Your task to perform on an android device: Search for seafood restaurants on Google Maps Image 0: 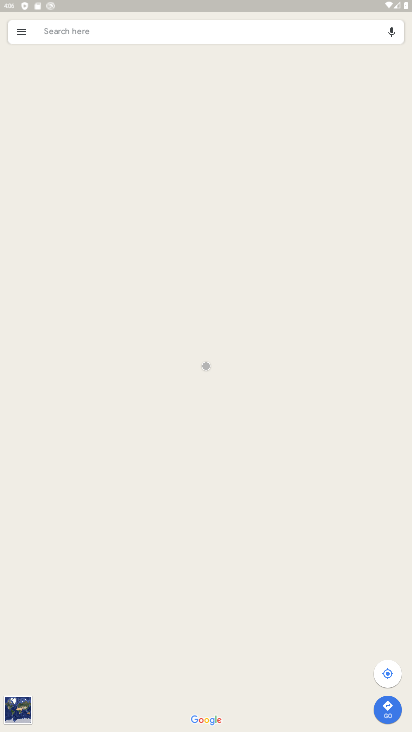
Step 0: press home button
Your task to perform on an android device: Search for seafood restaurants on Google Maps Image 1: 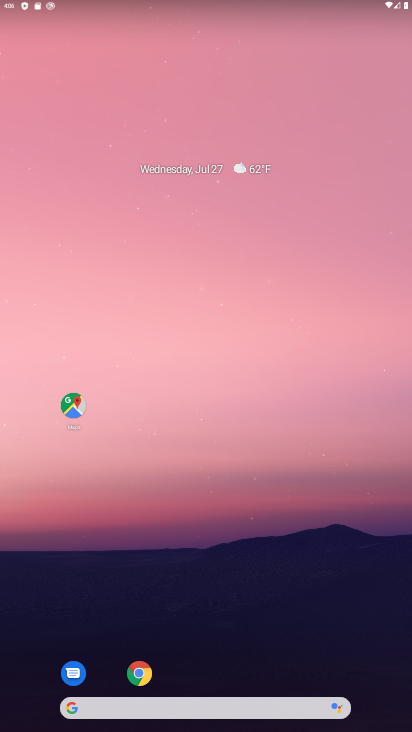
Step 1: click (73, 398)
Your task to perform on an android device: Search for seafood restaurants on Google Maps Image 2: 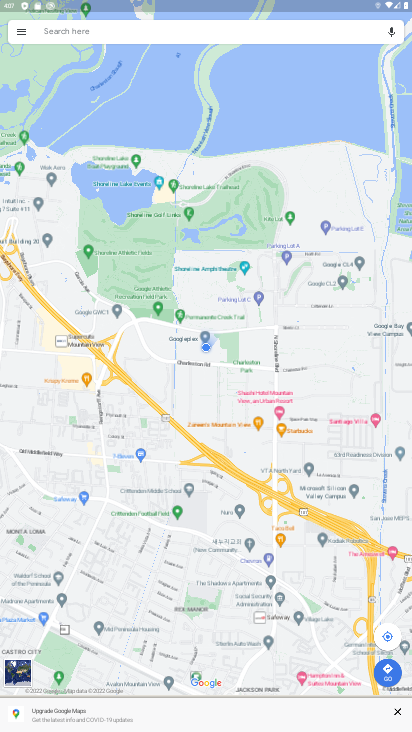
Step 2: click (132, 33)
Your task to perform on an android device: Search for seafood restaurants on Google Maps Image 3: 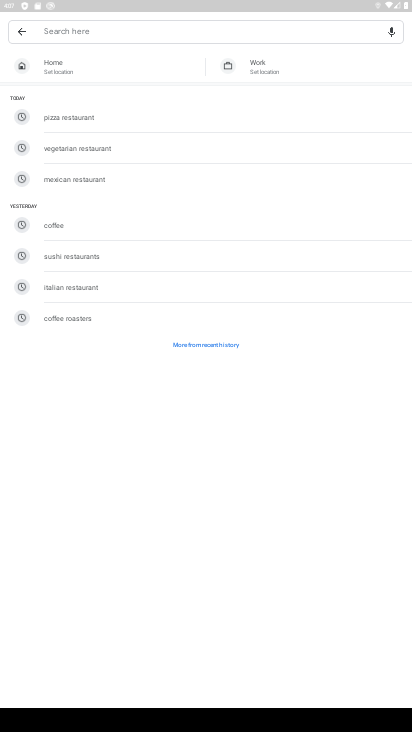
Step 3: type " seafood restaurants"
Your task to perform on an android device: Search for seafood restaurants on Google Maps Image 4: 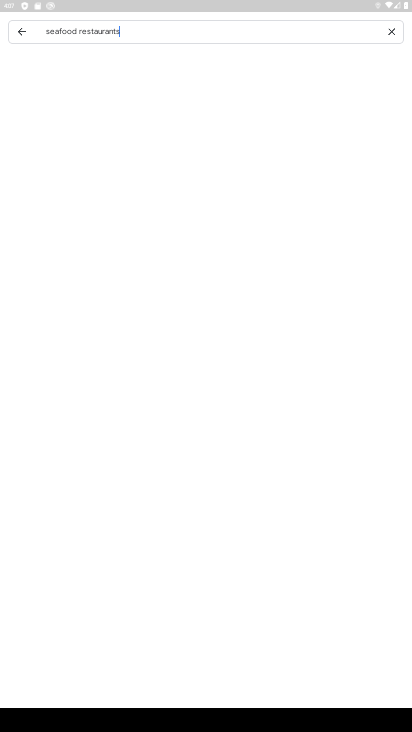
Step 4: type ""
Your task to perform on an android device: Search for seafood restaurants on Google Maps Image 5: 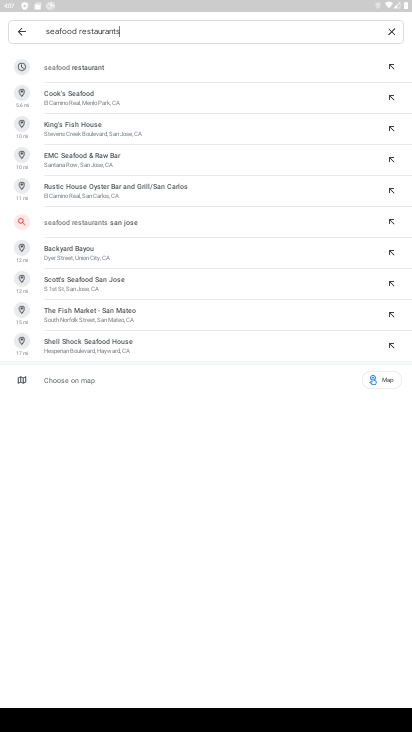
Step 5: click (47, 68)
Your task to perform on an android device: Search for seafood restaurants on Google Maps Image 6: 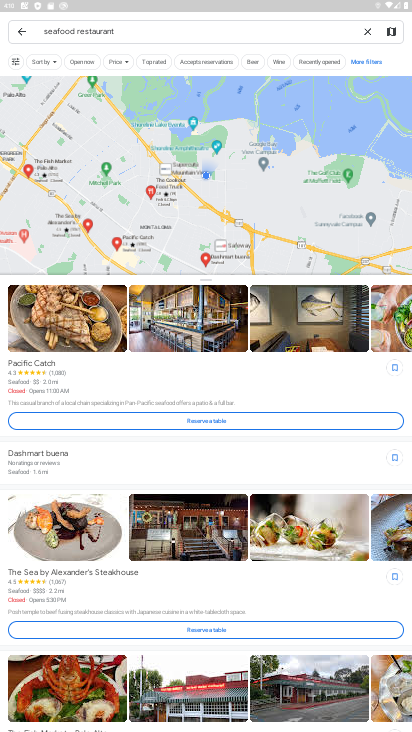
Step 6: task complete